Your task to perform on an android device: Open sound settings Image 0: 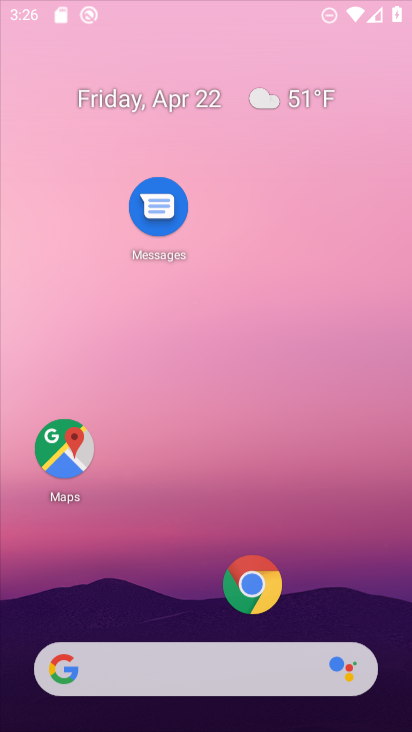
Step 0: drag from (195, 508) to (224, 137)
Your task to perform on an android device: Open sound settings Image 1: 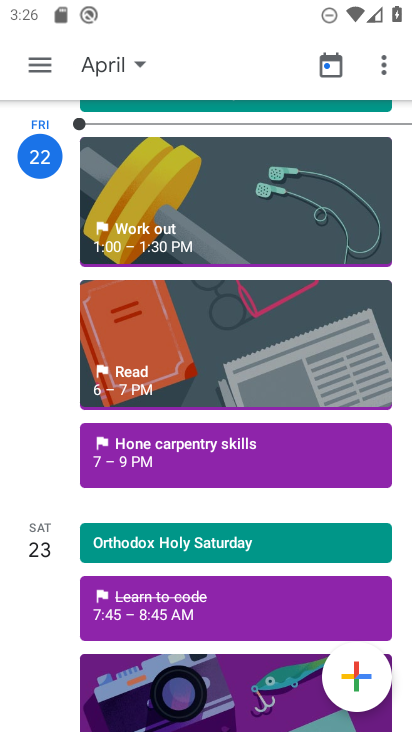
Step 1: press home button
Your task to perform on an android device: Open sound settings Image 2: 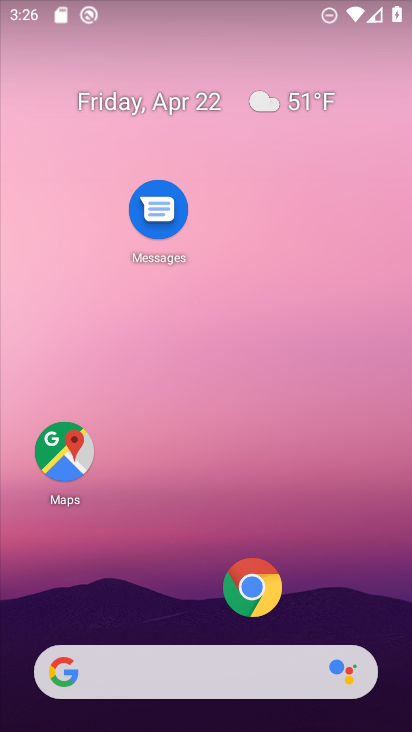
Step 2: drag from (172, 597) to (200, 167)
Your task to perform on an android device: Open sound settings Image 3: 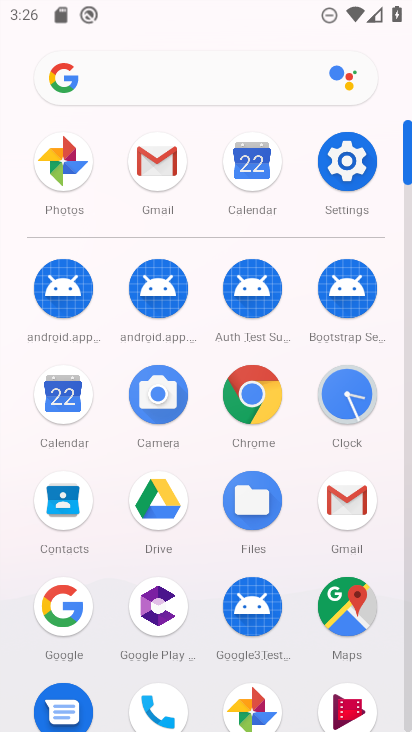
Step 3: click (342, 172)
Your task to perform on an android device: Open sound settings Image 4: 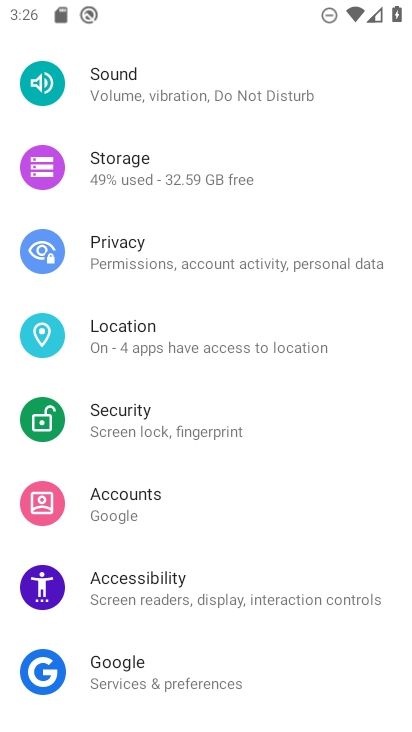
Step 4: drag from (242, 162) to (242, 512)
Your task to perform on an android device: Open sound settings Image 5: 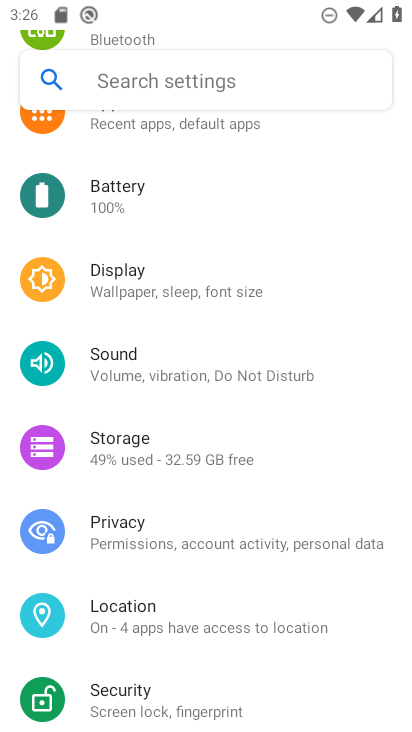
Step 5: click (169, 295)
Your task to perform on an android device: Open sound settings Image 6: 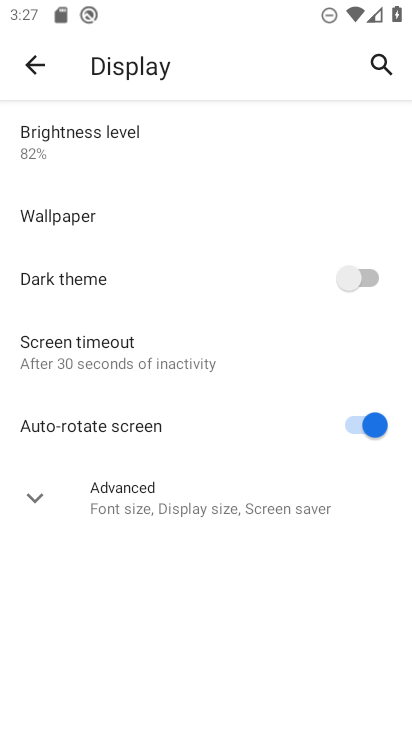
Step 6: press home button
Your task to perform on an android device: Open sound settings Image 7: 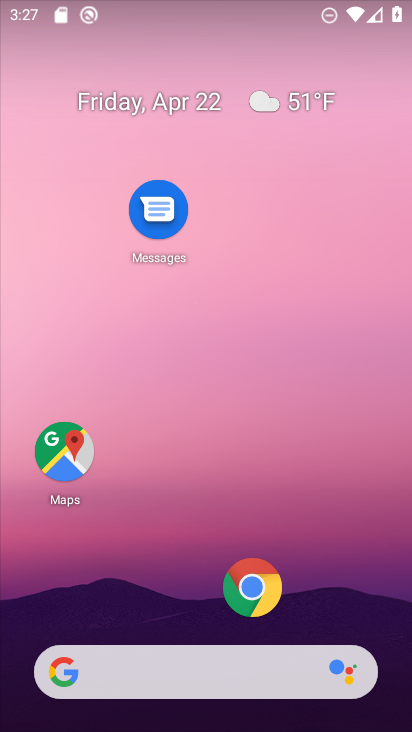
Step 7: drag from (200, 545) to (239, 206)
Your task to perform on an android device: Open sound settings Image 8: 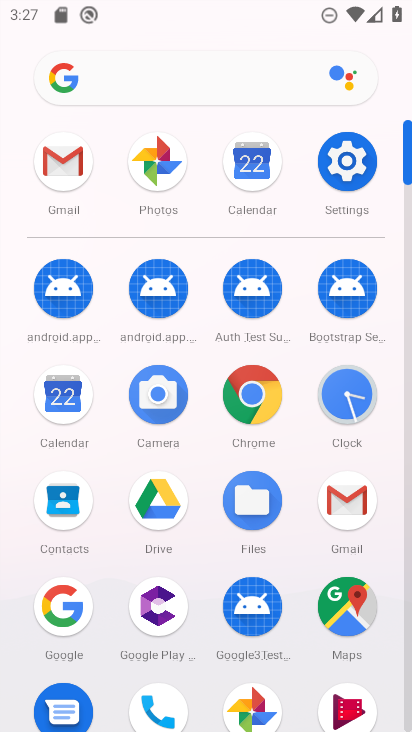
Step 8: click (355, 157)
Your task to perform on an android device: Open sound settings Image 9: 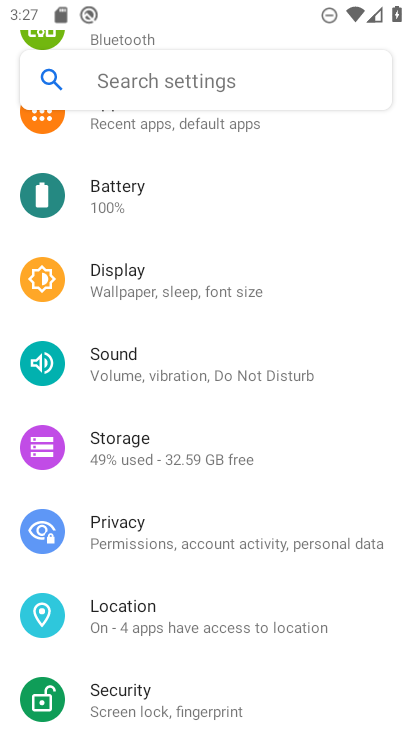
Step 9: click (155, 366)
Your task to perform on an android device: Open sound settings Image 10: 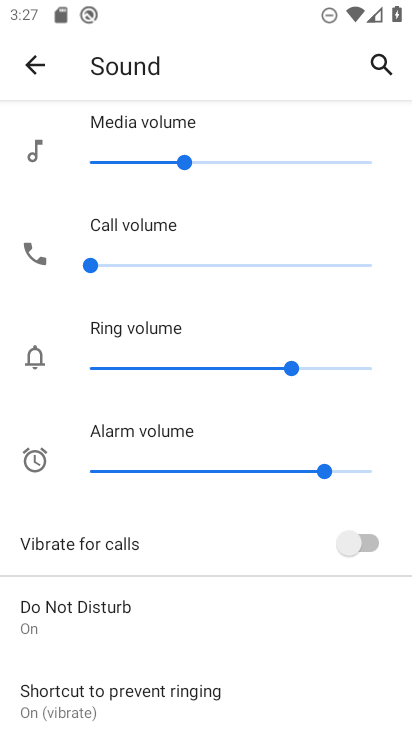
Step 10: task complete